Your task to perform on an android device: Open Google Chrome Image 0: 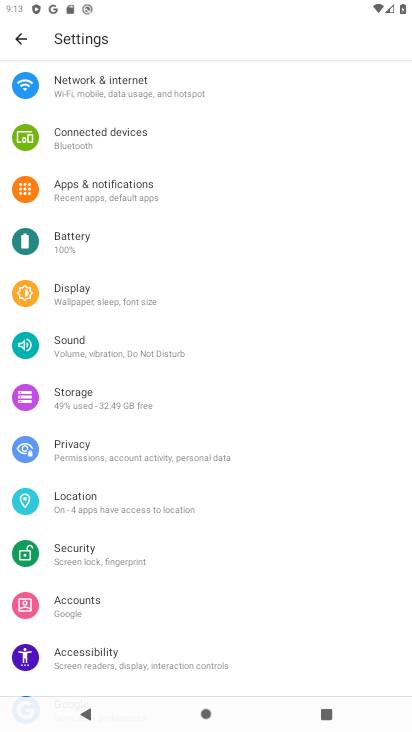
Step 0: press home button
Your task to perform on an android device: Open Google Chrome Image 1: 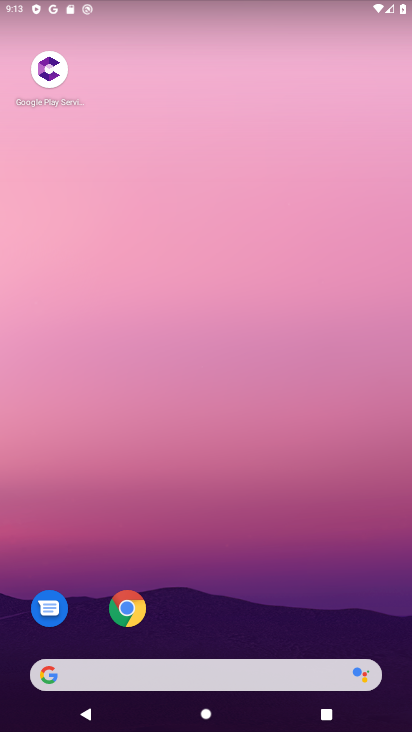
Step 1: click (160, 612)
Your task to perform on an android device: Open Google Chrome Image 2: 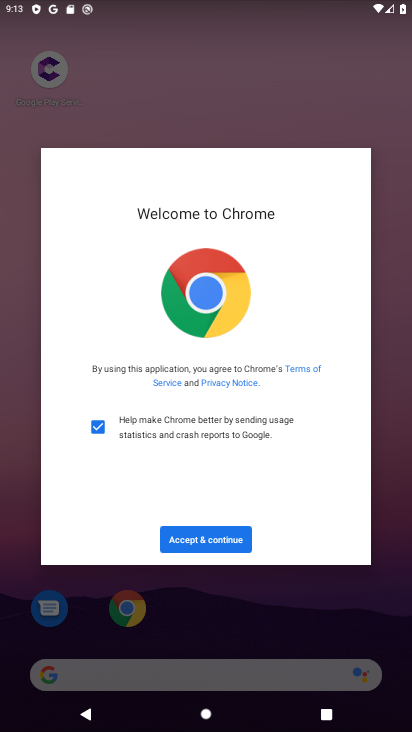
Step 2: task complete